Your task to perform on an android device: change the clock display to digital Image 0: 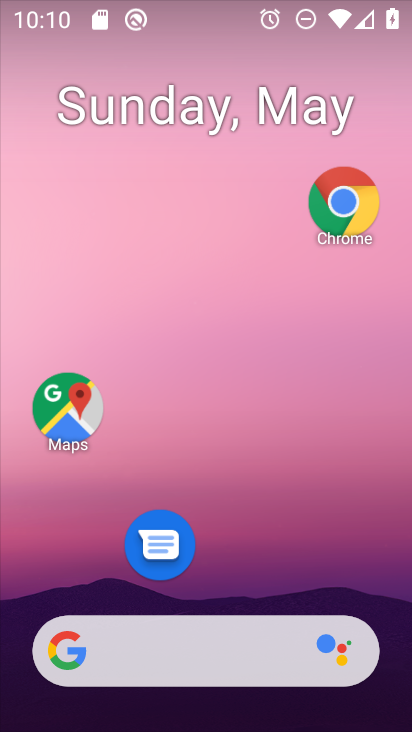
Step 0: drag from (247, 565) to (264, 24)
Your task to perform on an android device: change the clock display to digital Image 1: 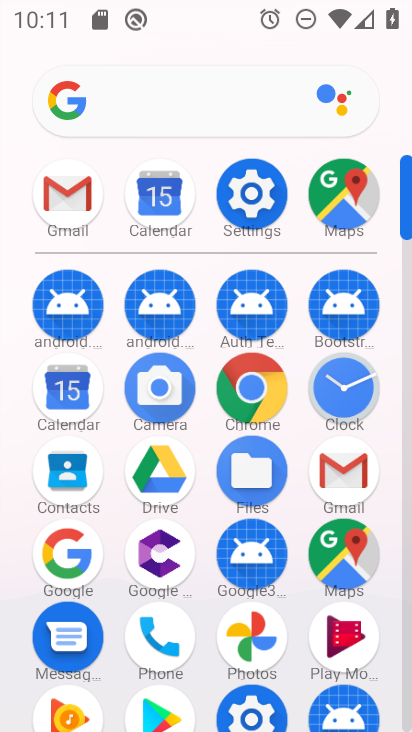
Step 1: click (333, 376)
Your task to perform on an android device: change the clock display to digital Image 2: 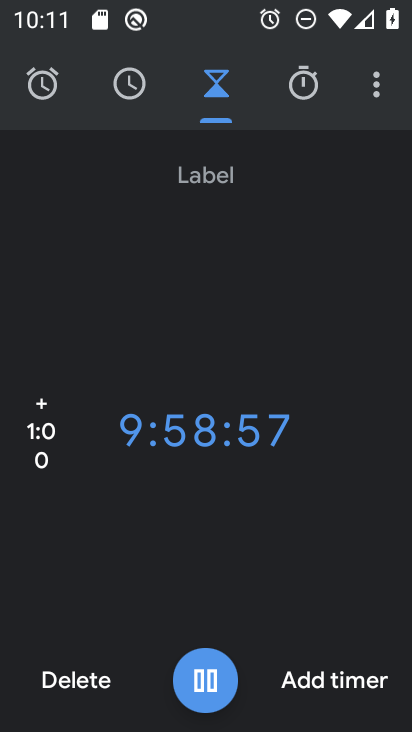
Step 2: click (368, 89)
Your task to perform on an android device: change the clock display to digital Image 3: 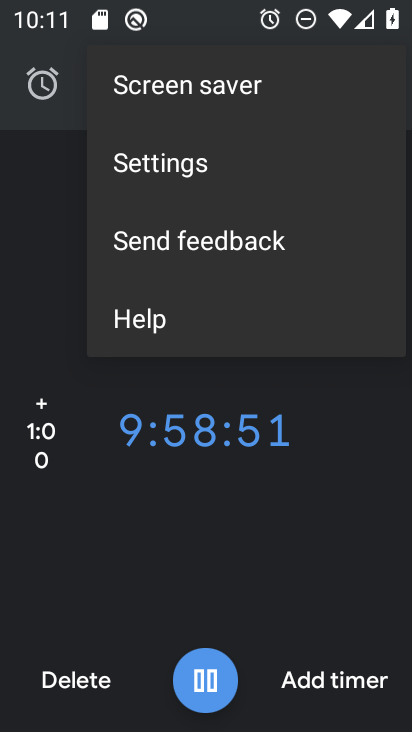
Step 3: click (207, 169)
Your task to perform on an android device: change the clock display to digital Image 4: 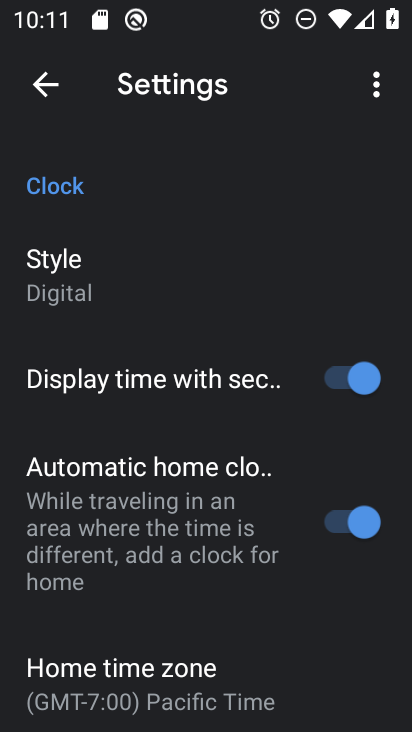
Step 4: click (157, 268)
Your task to perform on an android device: change the clock display to digital Image 5: 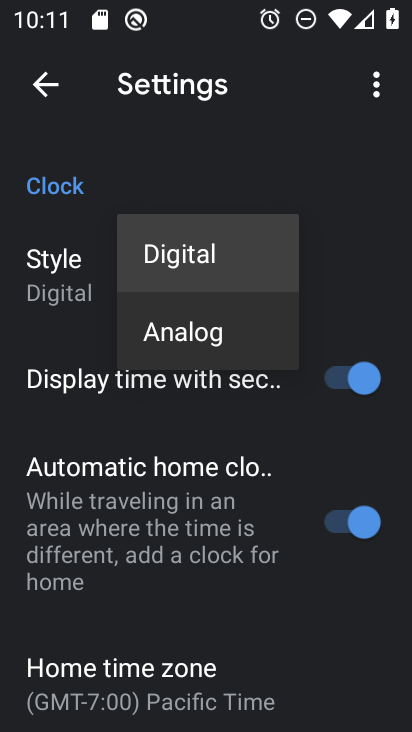
Step 5: click (173, 262)
Your task to perform on an android device: change the clock display to digital Image 6: 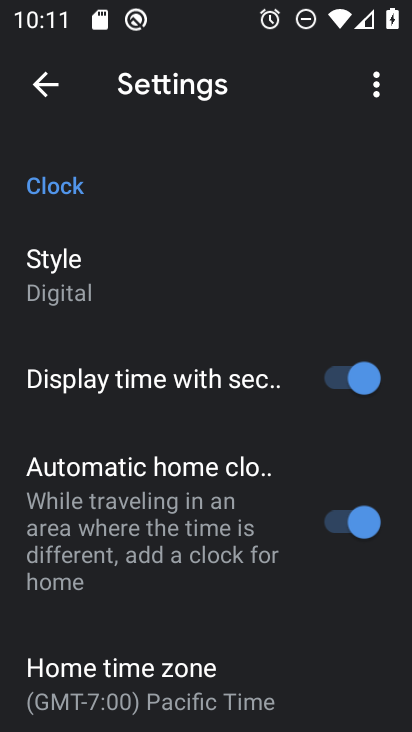
Step 6: task complete